Your task to perform on an android device: choose inbox layout in the gmail app Image 0: 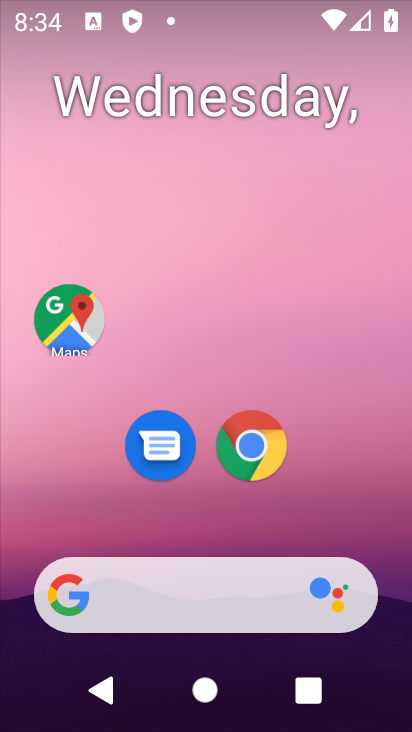
Step 0: drag from (373, 424) to (374, 47)
Your task to perform on an android device: choose inbox layout in the gmail app Image 1: 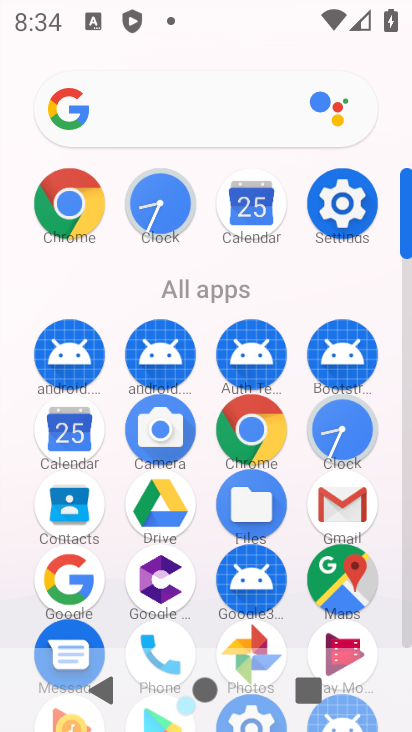
Step 1: click (347, 518)
Your task to perform on an android device: choose inbox layout in the gmail app Image 2: 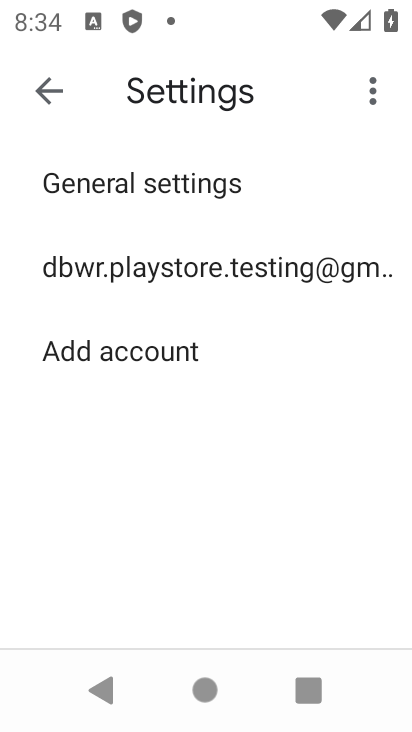
Step 2: click (35, 78)
Your task to perform on an android device: choose inbox layout in the gmail app Image 3: 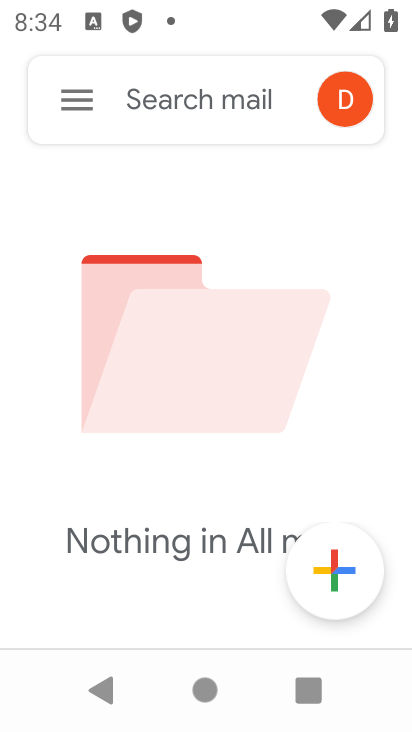
Step 3: click (71, 91)
Your task to perform on an android device: choose inbox layout in the gmail app Image 4: 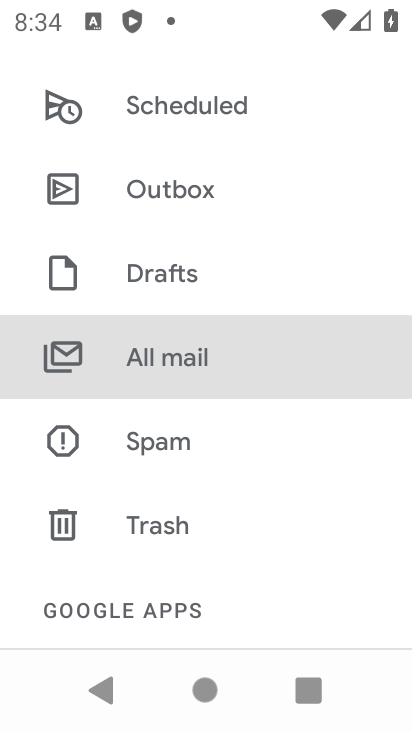
Step 4: drag from (175, 473) to (213, 86)
Your task to perform on an android device: choose inbox layout in the gmail app Image 5: 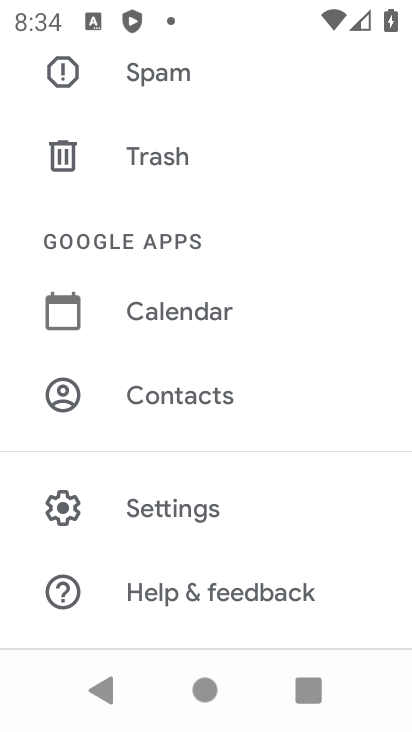
Step 5: click (165, 505)
Your task to perform on an android device: choose inbox layout in the gmail app Image 6: 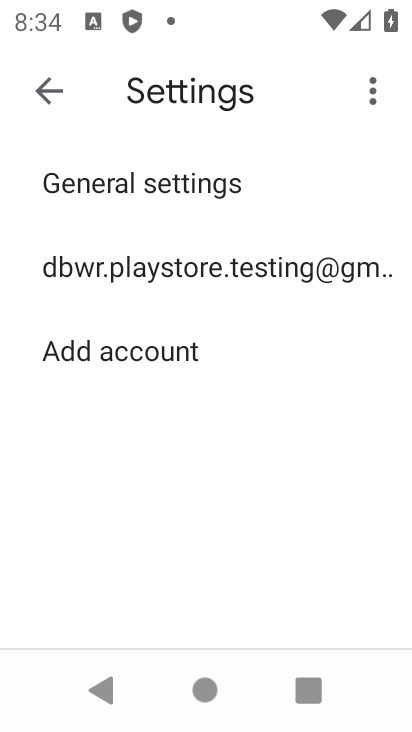
Step 6: click (146, 270)
Your task to perform on an android device: choose inbox layout in the gmail app Image 7: 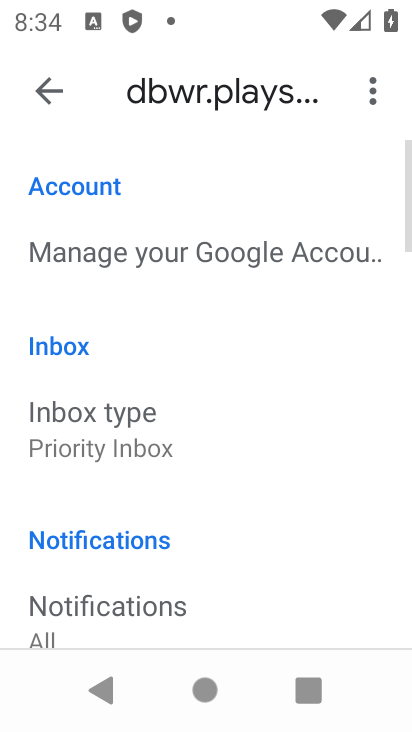
Step 7: click (102, 426)
Your task to perform on an android device: choose inbox layout in the gmail app Image 8: 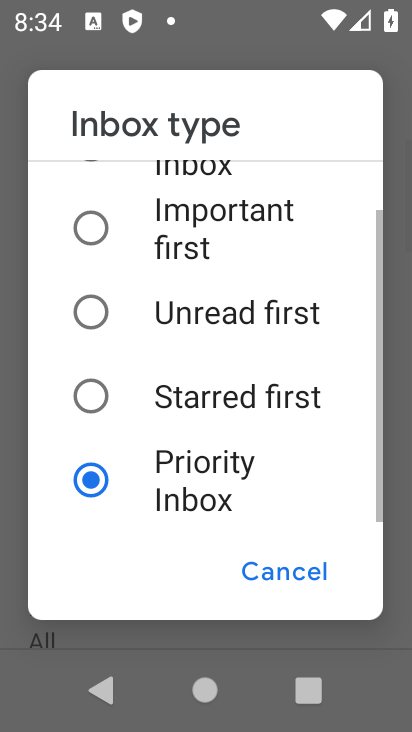
Step 8: click (76, 320)
Your task to perform on an android device: choose inbox layout in the gmail app Image 9: 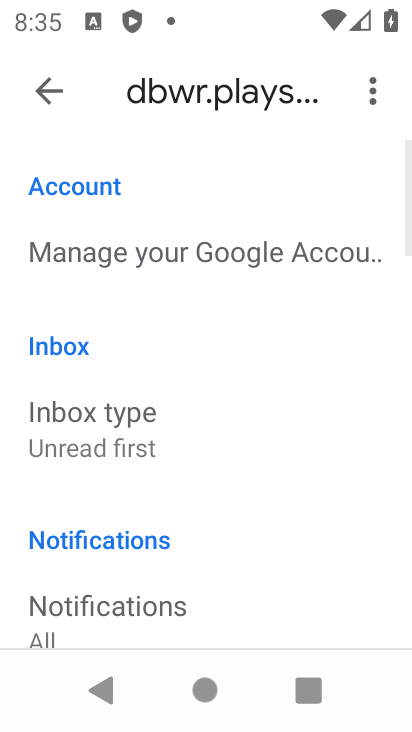
Step 9: task complete